Your task to perform on an android device: What's on my calendar tomorrow? Image 0: 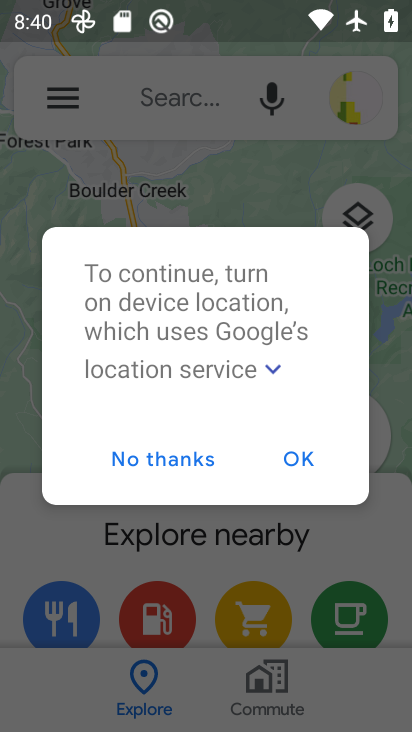
Step 0: press home button
Your task to perform on an android device: What's on my calendar tomorrow? Image 1: 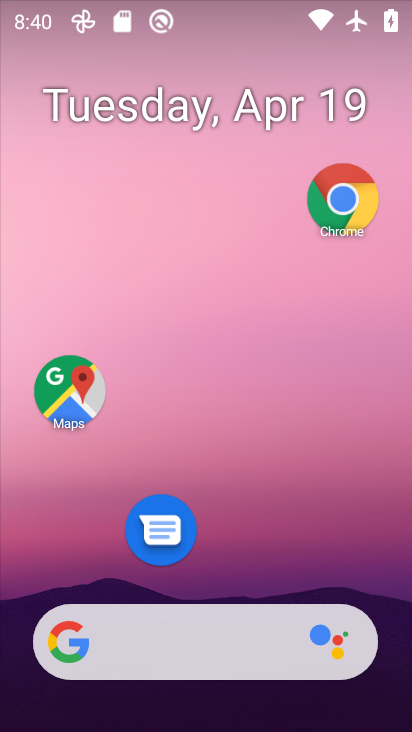
Step 1: drag from (202, 523) to (230, 63)
Your task to perform on an android device: What's on my calendar tomorrow? Image 2: 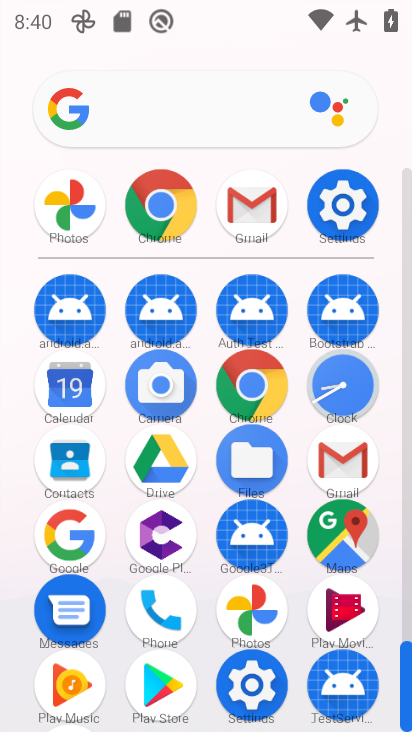
Step 2: click (89, 373)
Your task to perform on an android device: What's on my calendar tomorrow? Image 3: 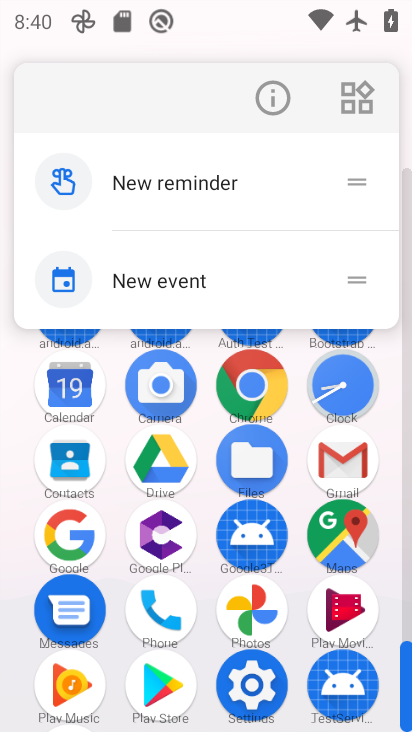
Step 3: click (287, 79)
Your task to perform on an android device: What's on my calendar tomorrow? Image 4: 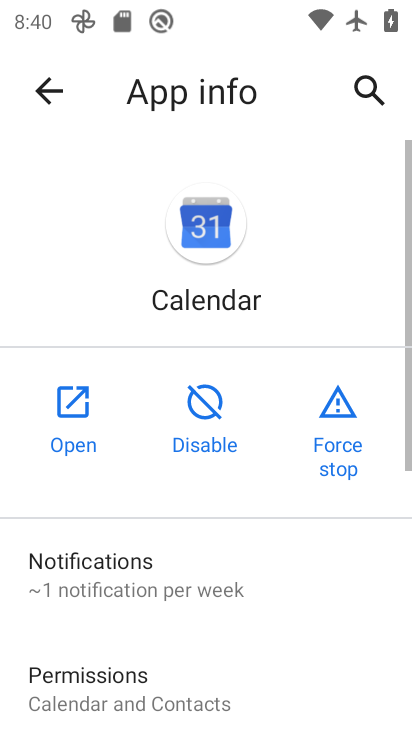
Step 4: click (86, 423)
Your task to perform on an android device: What's on my calendar tomorrow? Image 5: 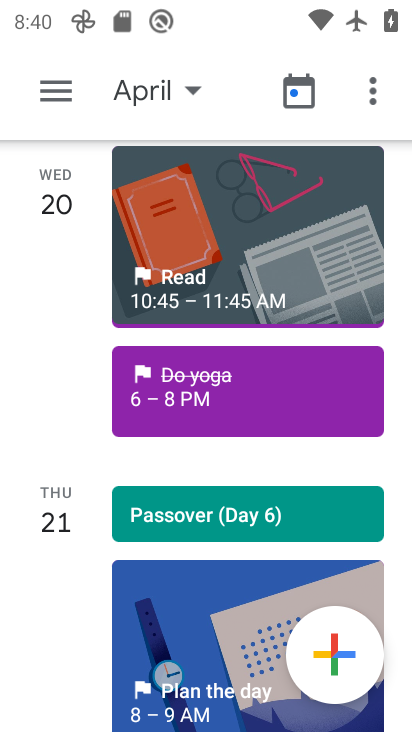
Step 5: click (147, 123)
Your task to perform on an android device: What's on my calendar tomorrow? Image 6: 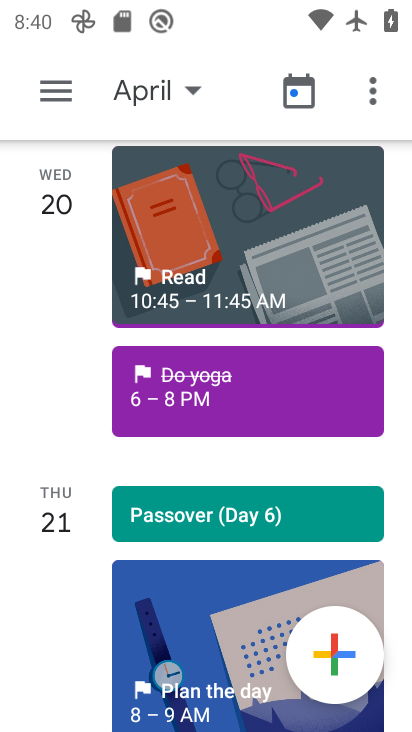
Step 6: click (181, 100)
Your task to perform on an android device: What's on my calendar tomorrow? Image 7: 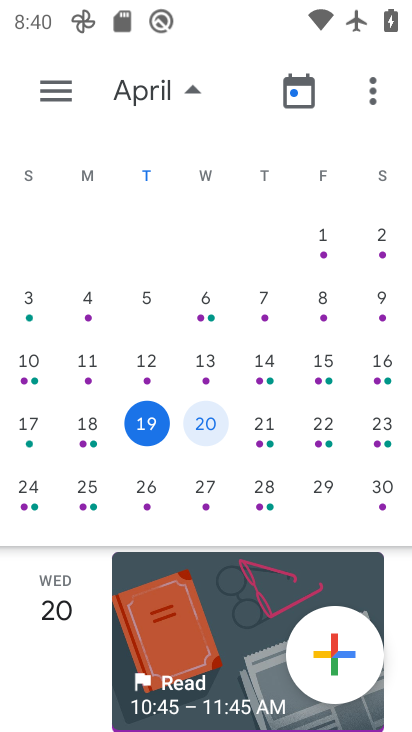
Step 7: click (220, 427)
Your task to perform on an android device: What's on my calendar tomorrow? Image 8: 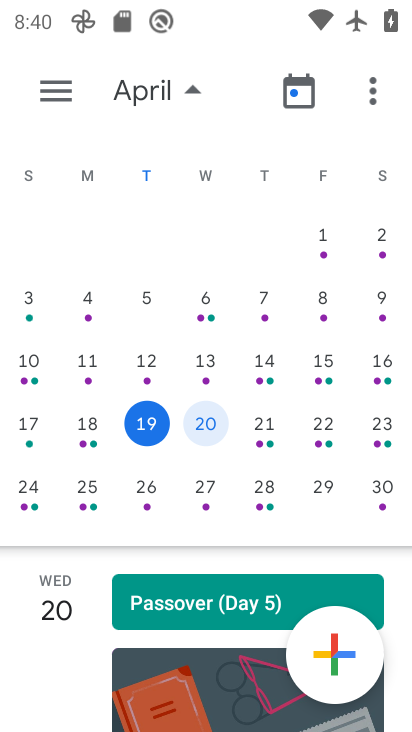
Step 8: click (272, 427)
Your task to perform on an android device: What's on my calendar tomorrow? Image 9: 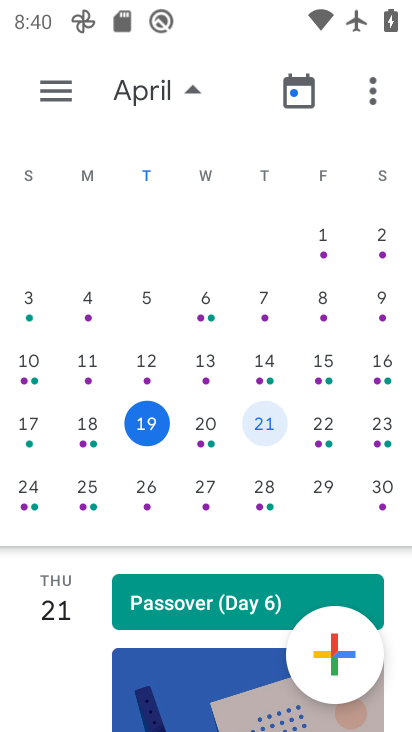
Step 9: click (199, 421)
Your task to perform on an android device: What's on my calendar tomorrow? Image 10: 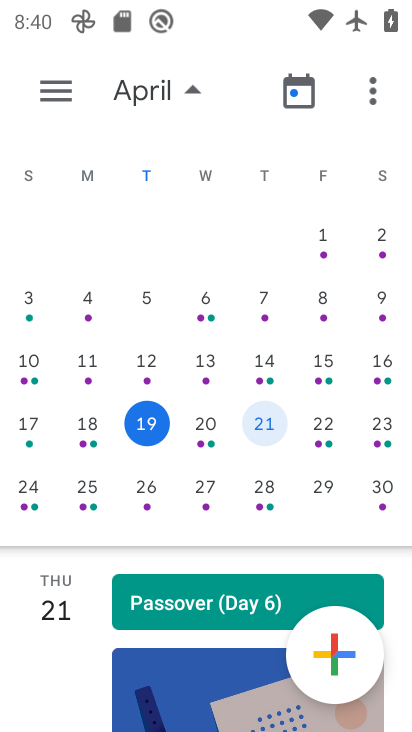
Step 10: task complete